Your task to perform on an android device: Add "razer blackwidow" to the cart on ebay, then select checkout. Image 0: 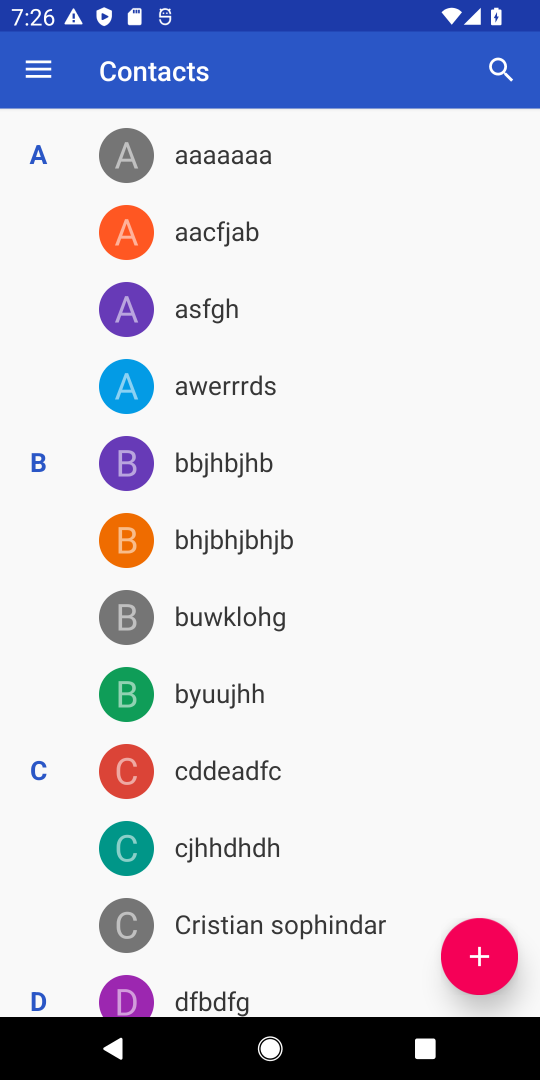
Step 0: press home button
Your task to perform on an android device: Add "razer blackwidow" to the cart on ebay, then select checkout. Image 1: 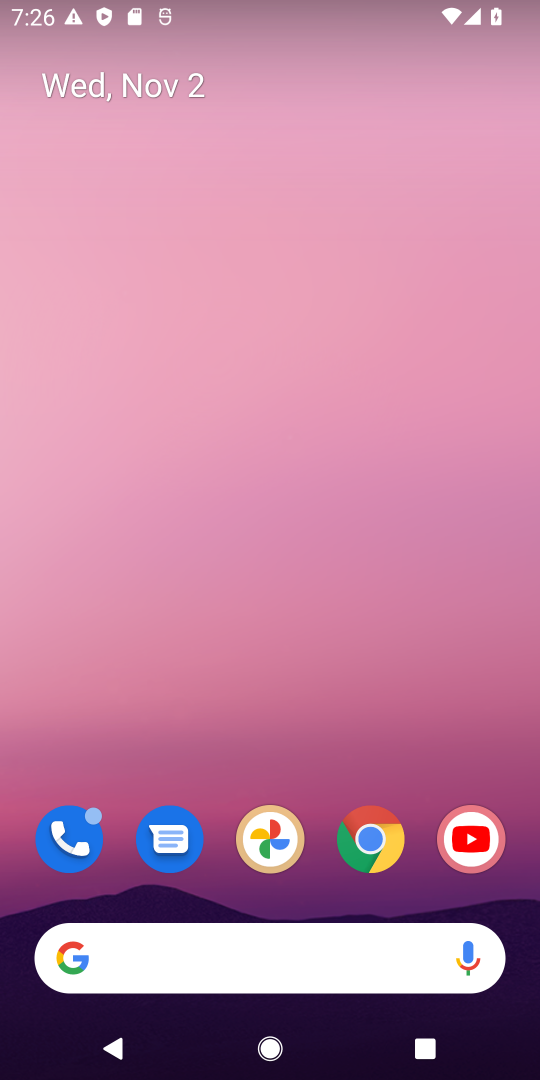
Step 1: click (370, 840)
Your task to perform on an android device: Add "razer blackwidow" to the cart on ebay, then select checkout. Image 2: 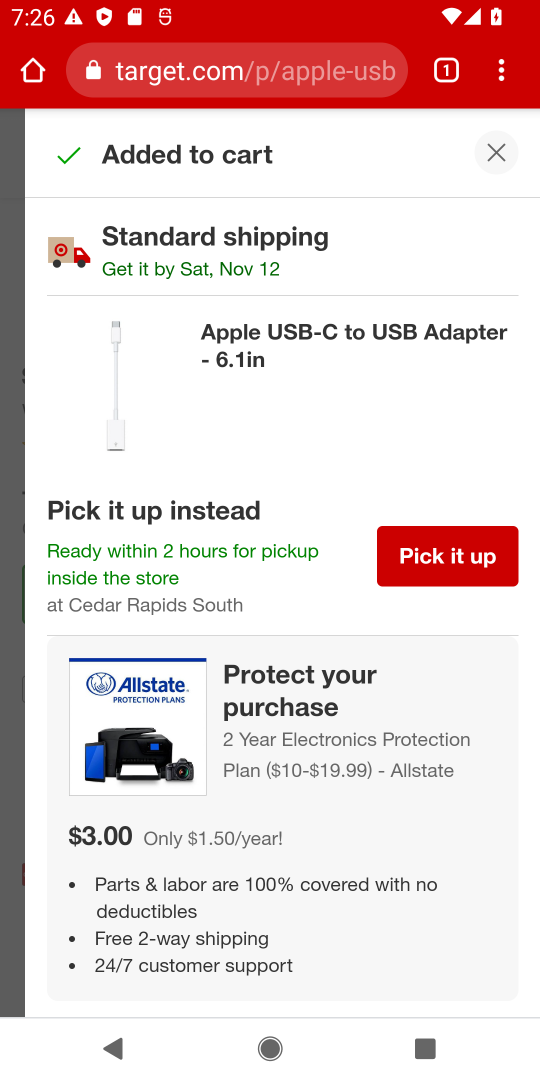
Step 2: click (261, 76)
Your task to perform on an android device: Add "razer blackwidow" to the cart on ebay, then select checkout. Image 3: 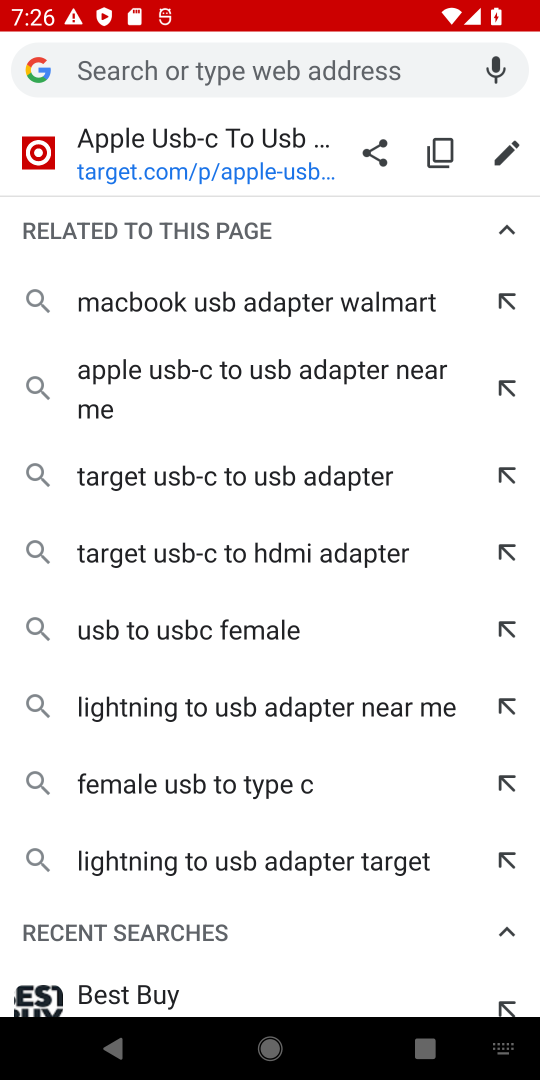
Step 3: type "ebay"
Your task to perform on an android device: Add "razer blackwidow" to the cart on ebay, then select checkout. Image 4: 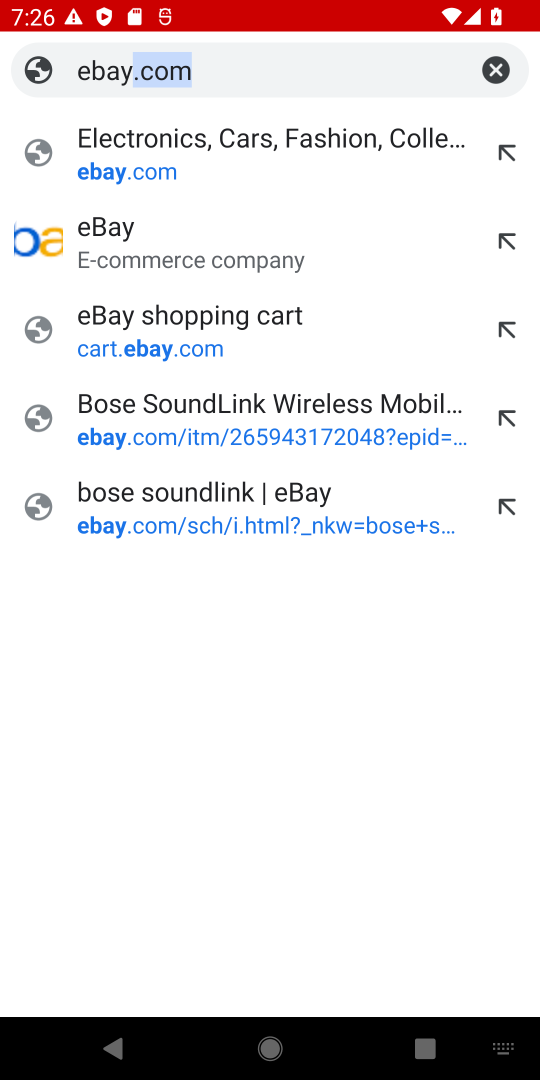
Step 4: click (207, 238)
Your task to perform on an android device: Add "razer blackwidow" to the cart on ebay, then select checkout. Image 5: 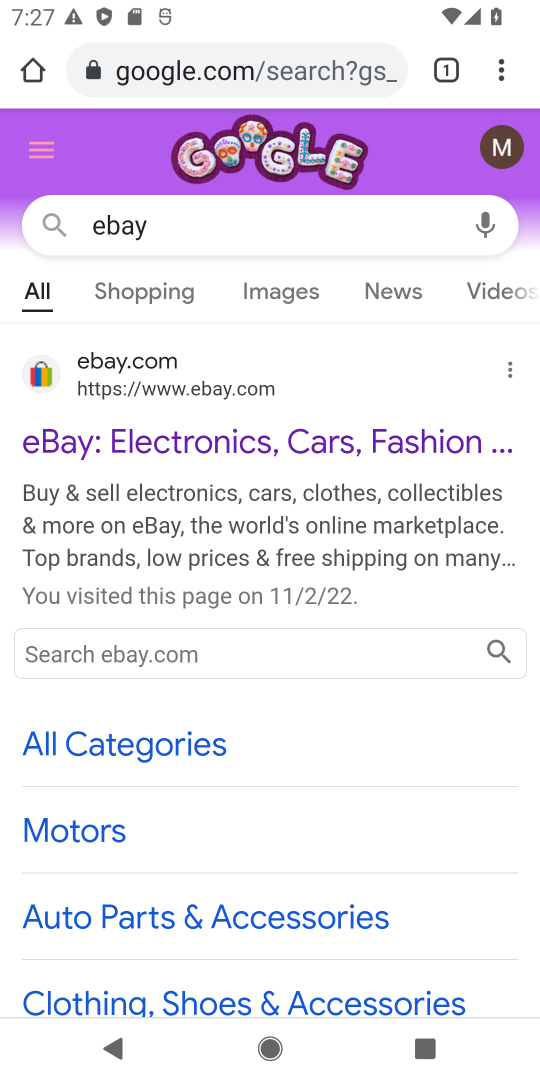
Step 5: click (288, 403)
Your task to perform on an android device: Add "razer blackwidow" to the cart on ebay, then select checkout. Image 6: 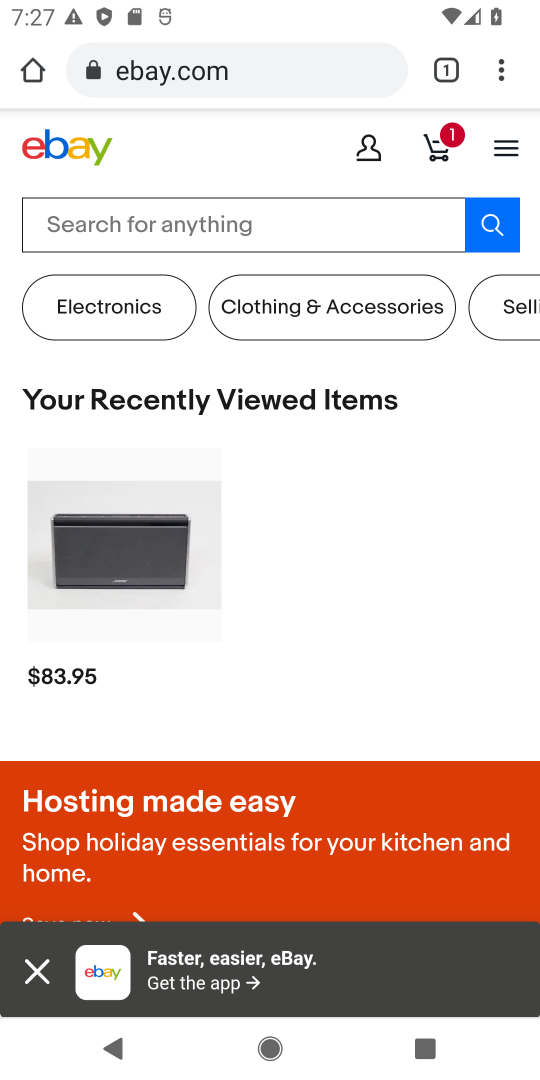
Step 6: click (218, 220)
Your task to perform on an android device: Add "razer blackwidow" to the cart on ebay, then select checkout. Image 7: 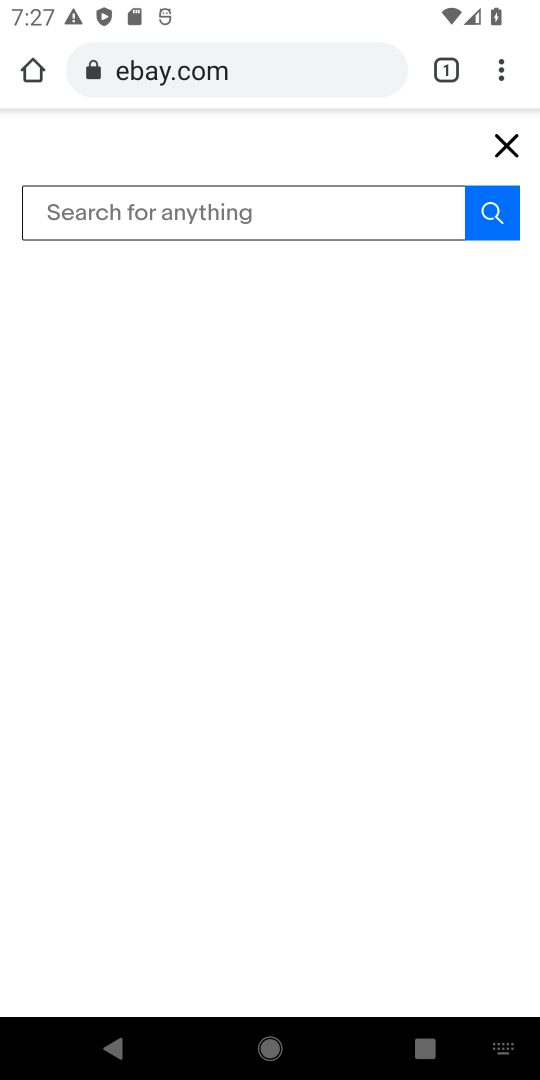
Step 7: type "razer blackwidow"
Your task to perform on an android device: Add "razer blackwidow" to the cart on ebay, then select checkout. Image 8: 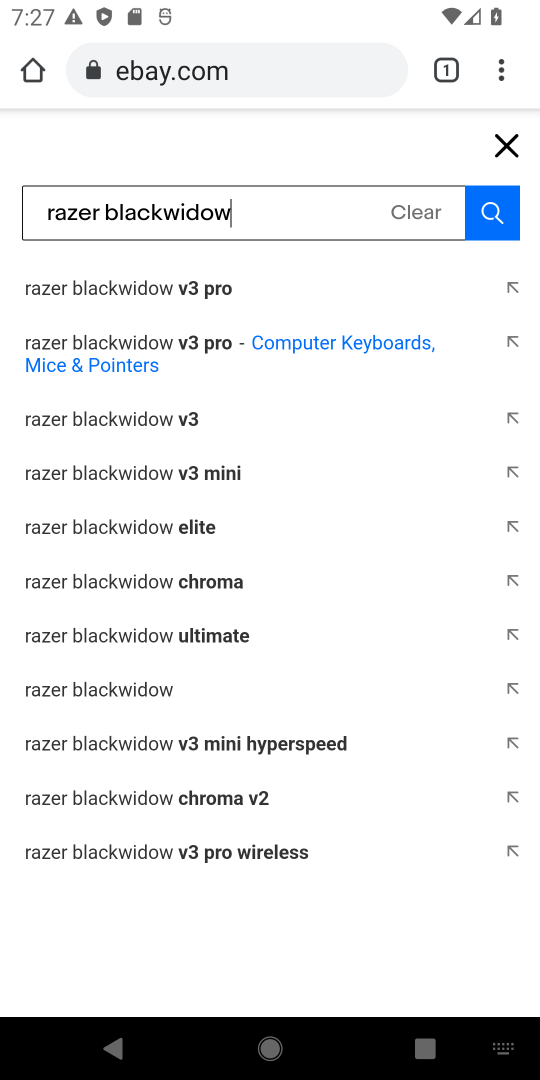
Step 8: click (481, 209)
Your task to perform on an android device: Add "razer blackwidow" to the cart on ebay, then select checkout. Image 9: 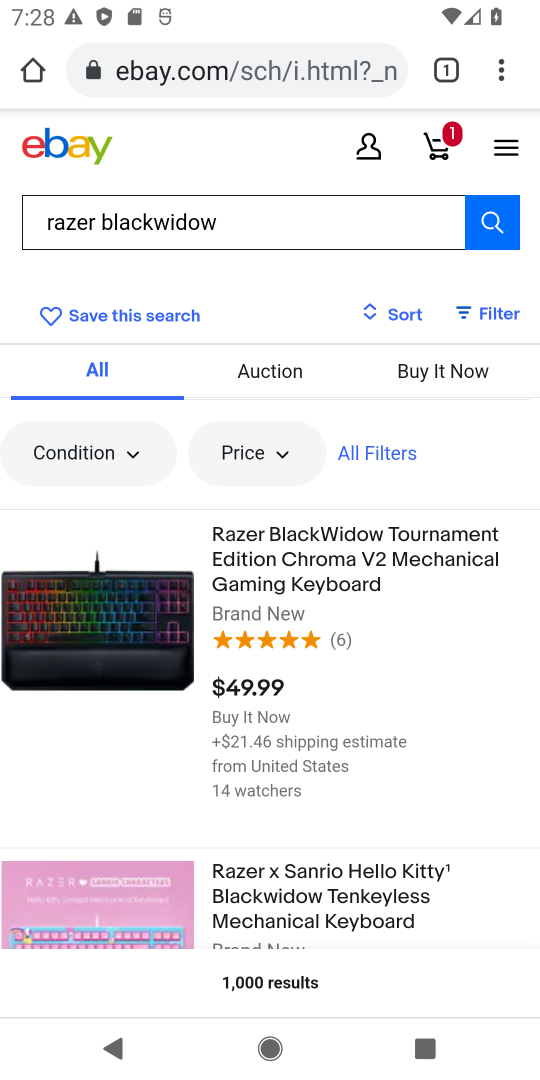
Step 9: click (363, 578)
Your task to perform on an android device: Add "razer blackwidow" to the cart on ebay, then select checkout. Image 10: 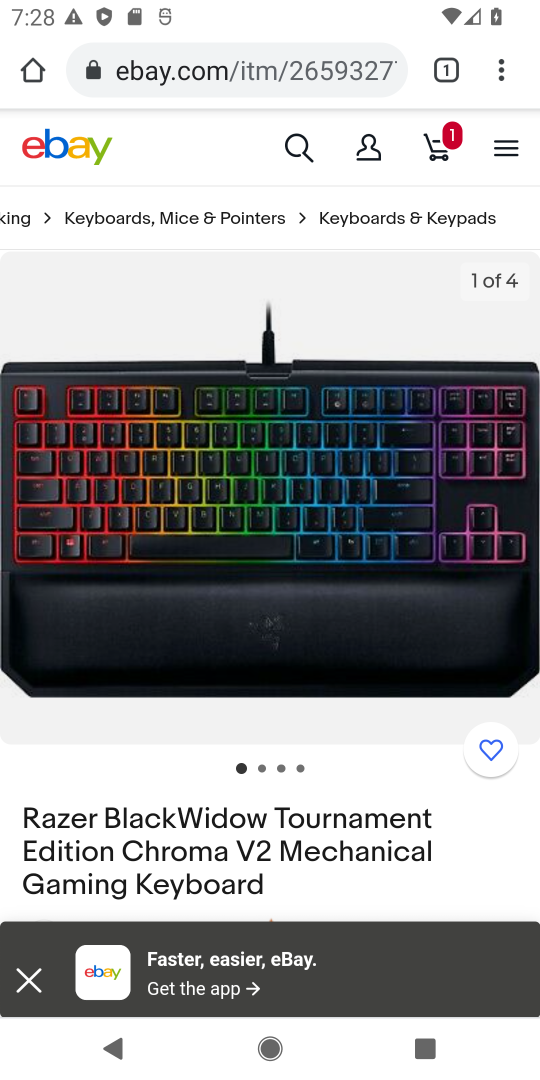
Step 10: drag from (365, 870) to (334, 276)
Your task to perform on an android device: Add "razer blackwidow" to the cart on ebay, then select checkout. Image 11: 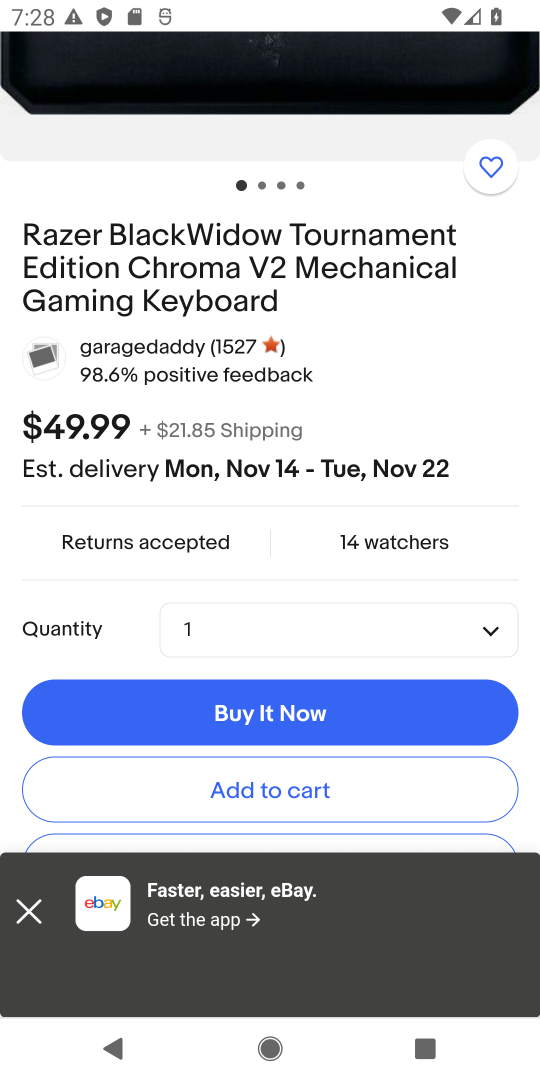
Step 11: click (271, 785)
Your task to perform on an android device: Add "razer blackwidow" to the cart on ebay, then select checkout. Image 12: 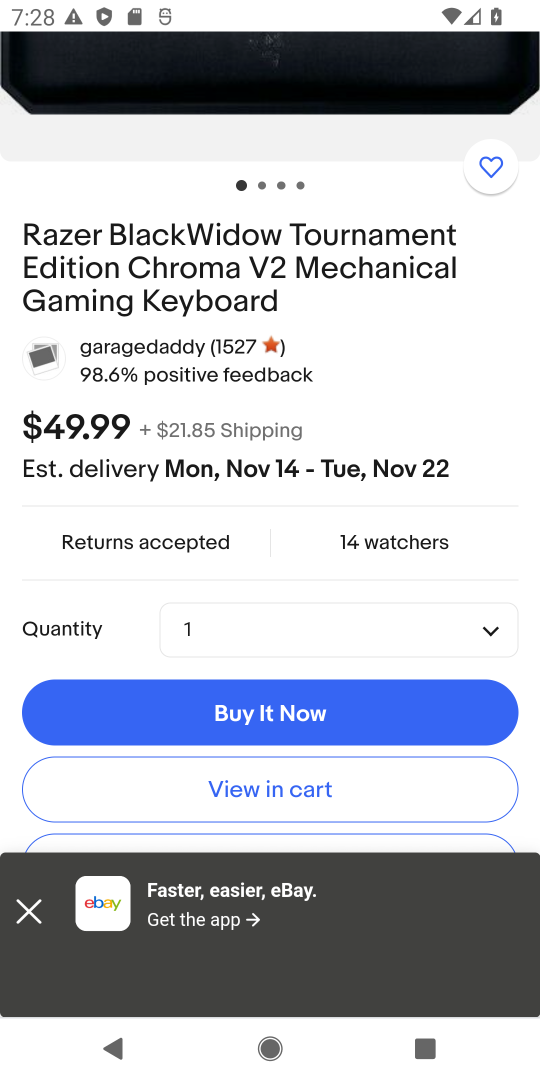
Step 12: click (271, 785)
Your task to perform on an android device: Add "razer blackwidow" to the cart on ebay, then select checkout. Image 13: 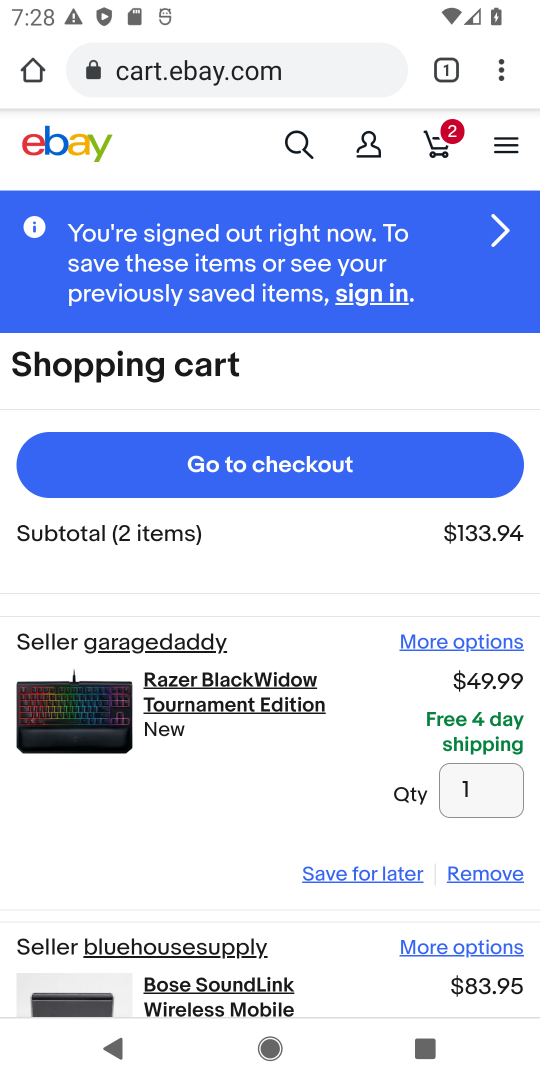
Step 13: click (291, 471)
Your task to perform on an android device: Add "razer blackwidow" to the cart on ebay, then select checkout. Image 14: 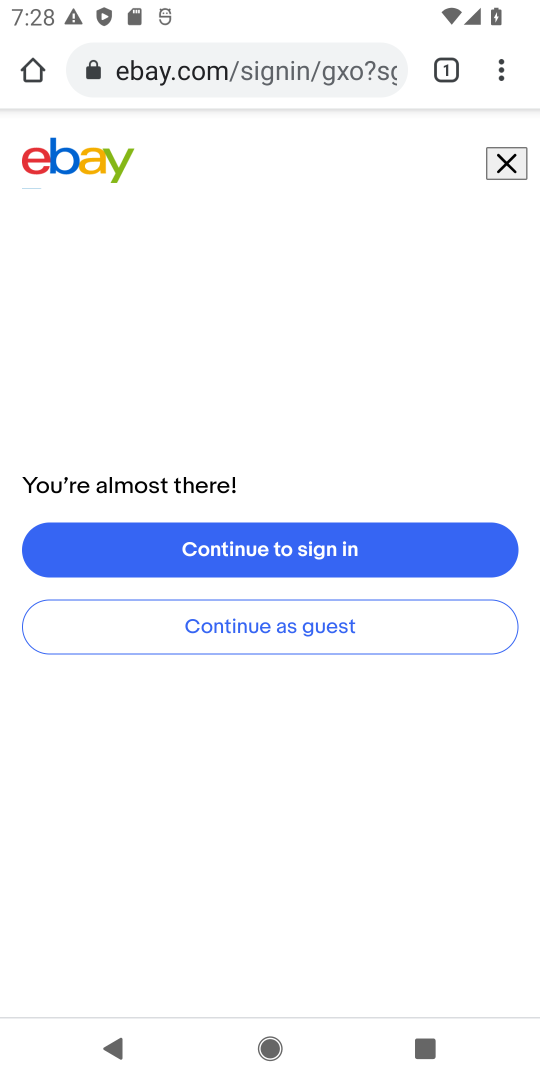
Step 14: task complete